Your task to perform on an android device: check data usage Image 0: 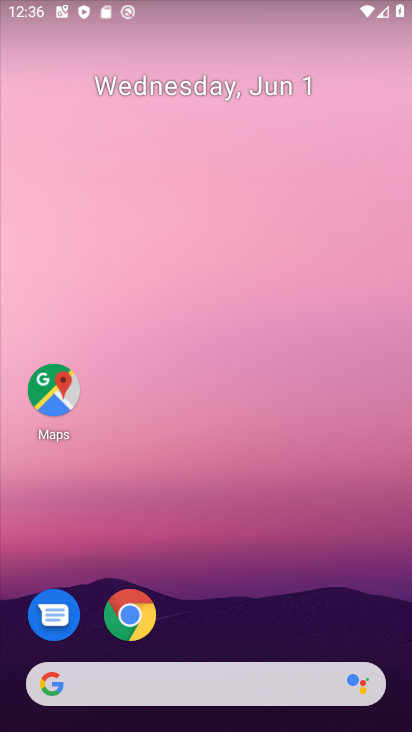
Step 0: task complete